Your task to perform on an android device: change the clock display to analog Image 0: 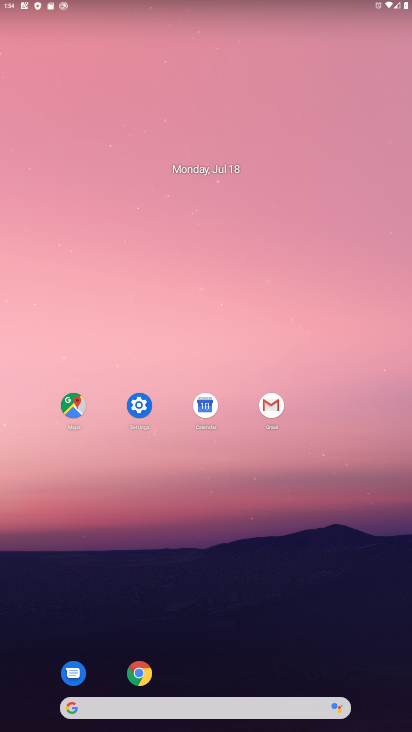
Step 0: click (132, 403)
Your task to perform on an android device: change the clock display to analog Image 1: 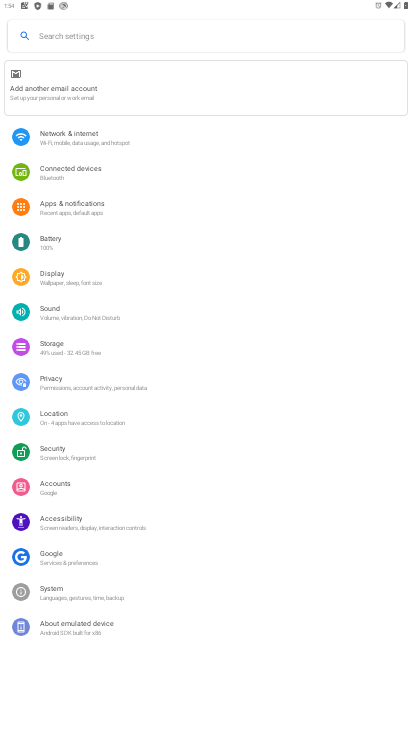
Step 1: press home button
Your task to perform on an android device: change the clock display to analog Image 2: 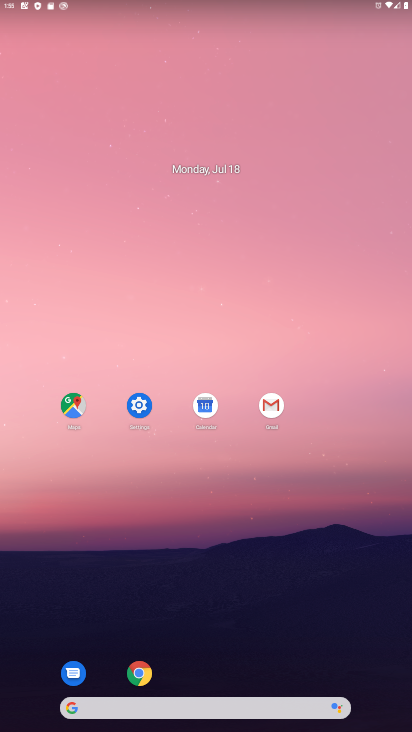
Step 2: drag from (383, 606) to (341, 14)
Your task to perform on an android device: change the clock display to analog Image 3: 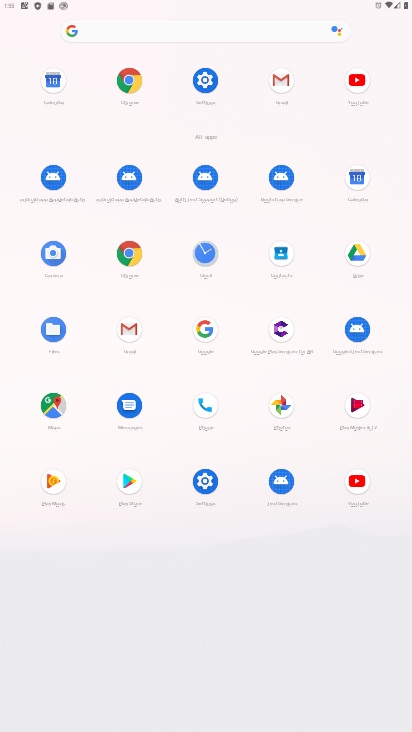
Step 3: drag from (212, 253) to (93, 403)
Your task to perform on an android device: change the clock display to analog Image 4: 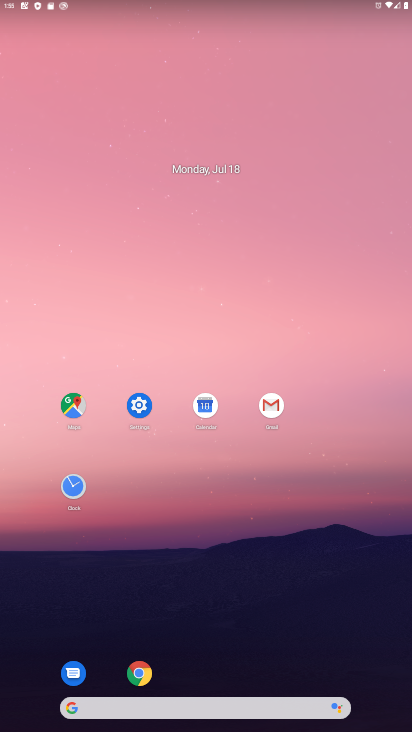
Step 4: click (70, 487)
Your task to perform on an android device: change the clock display to analog Image 5: 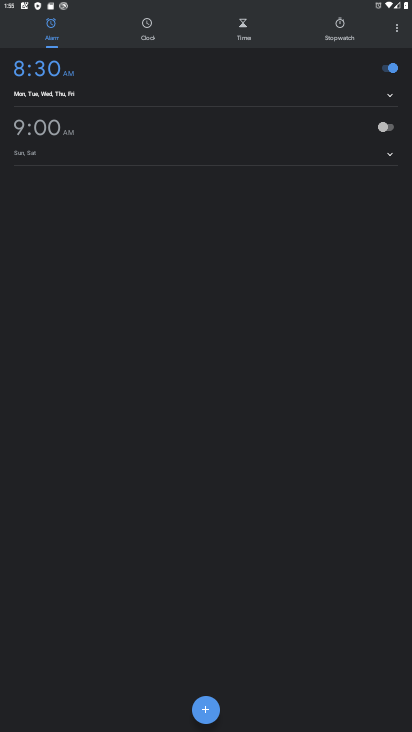
Step 5: click (398, 29)
Your task to perform on an android device: change the clock display to analog Image 6: 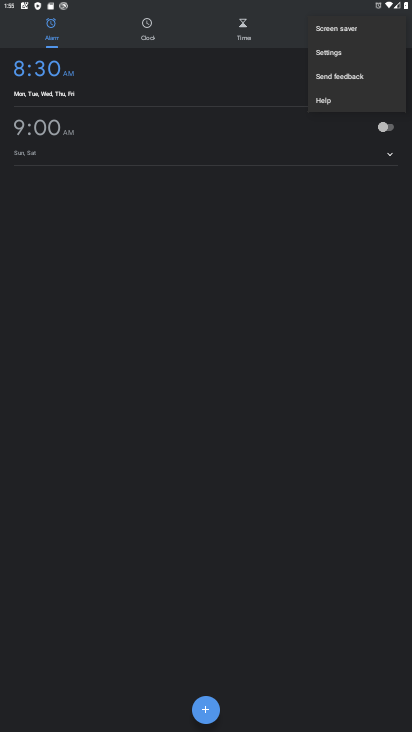
Step 6: click (332, 55)
Your task to perform on an android device: change the clock display to analog Image 7: 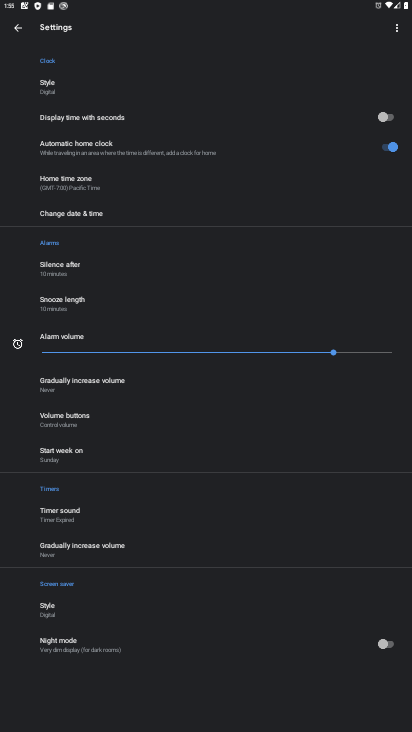
Step 7: click (48, 87)
Your task to perform on an android device: change the clock display to analog Image 8: 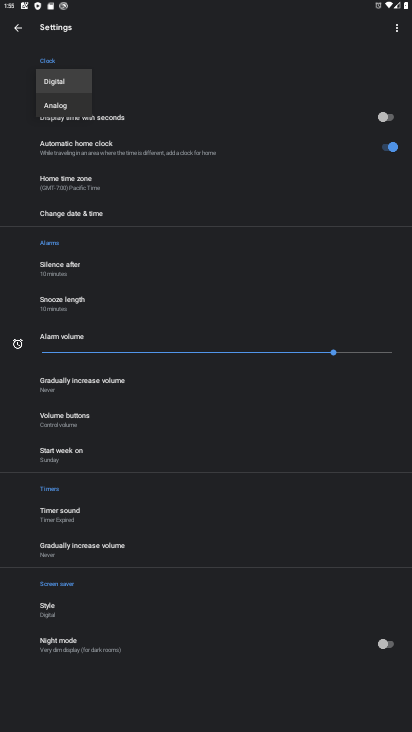
Step 8: click (61, 102)
Your task to perform on an android device: change the clock display to analog Image 9: 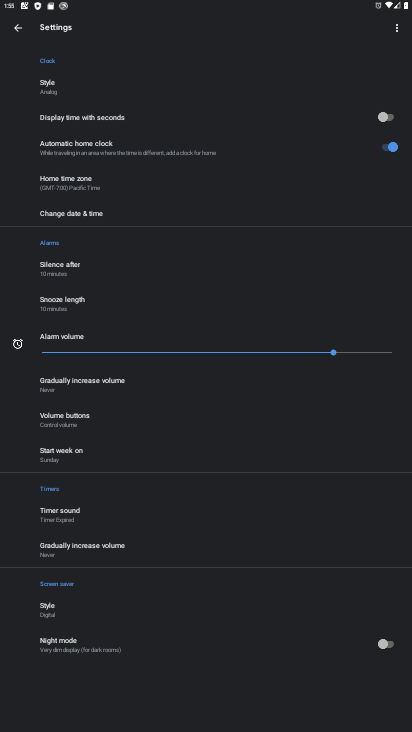
Step 9: task complete